Your task to perform on an android device: open chrome privacy settings Image 0: 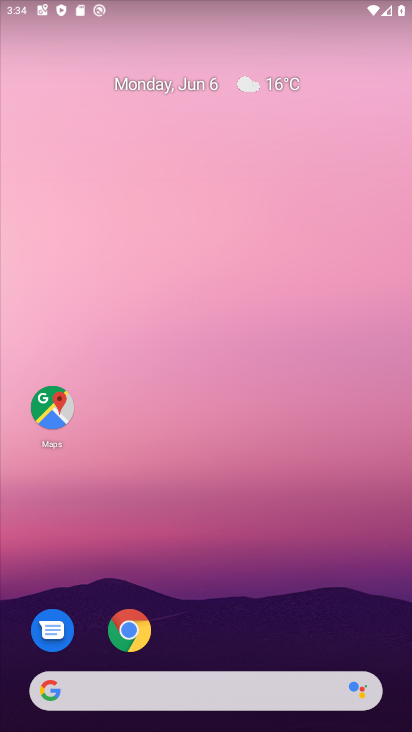
Step 0: click (130, 656)
Your task to perform on an android device: open chrome privacy settings Image 1: 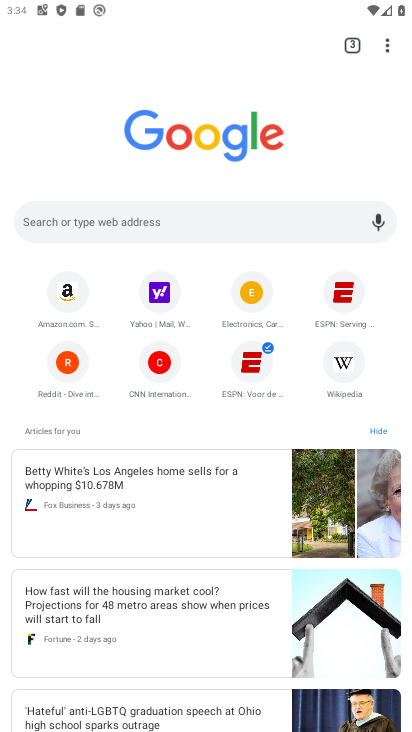
Step 1: drag from (390, 33) to (228, 381)
Your task to perform on an android device: open chrome privacy settings Image 2: 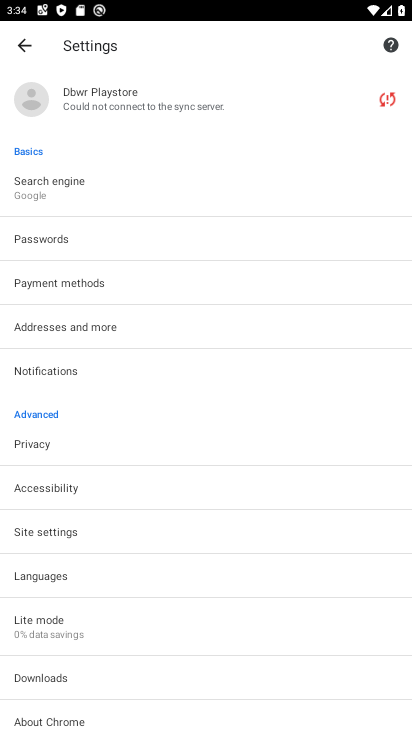
Step 2: click (71, 448)
Your task to perform on an android device: open chrome privacy settings Image 3: 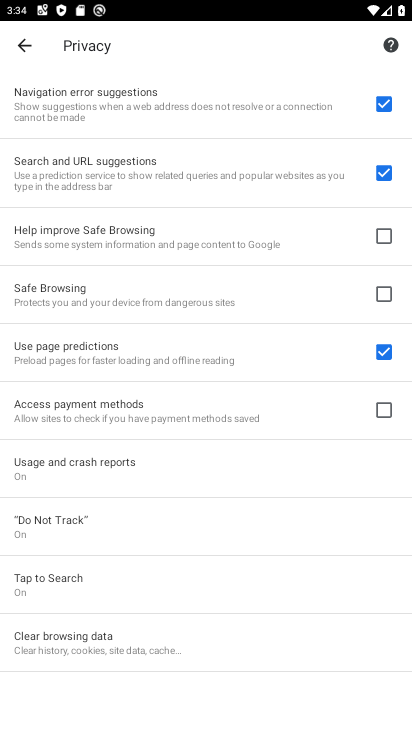
Step 3: task complete